Your task to perform on an android device: change the clock style Image 0: 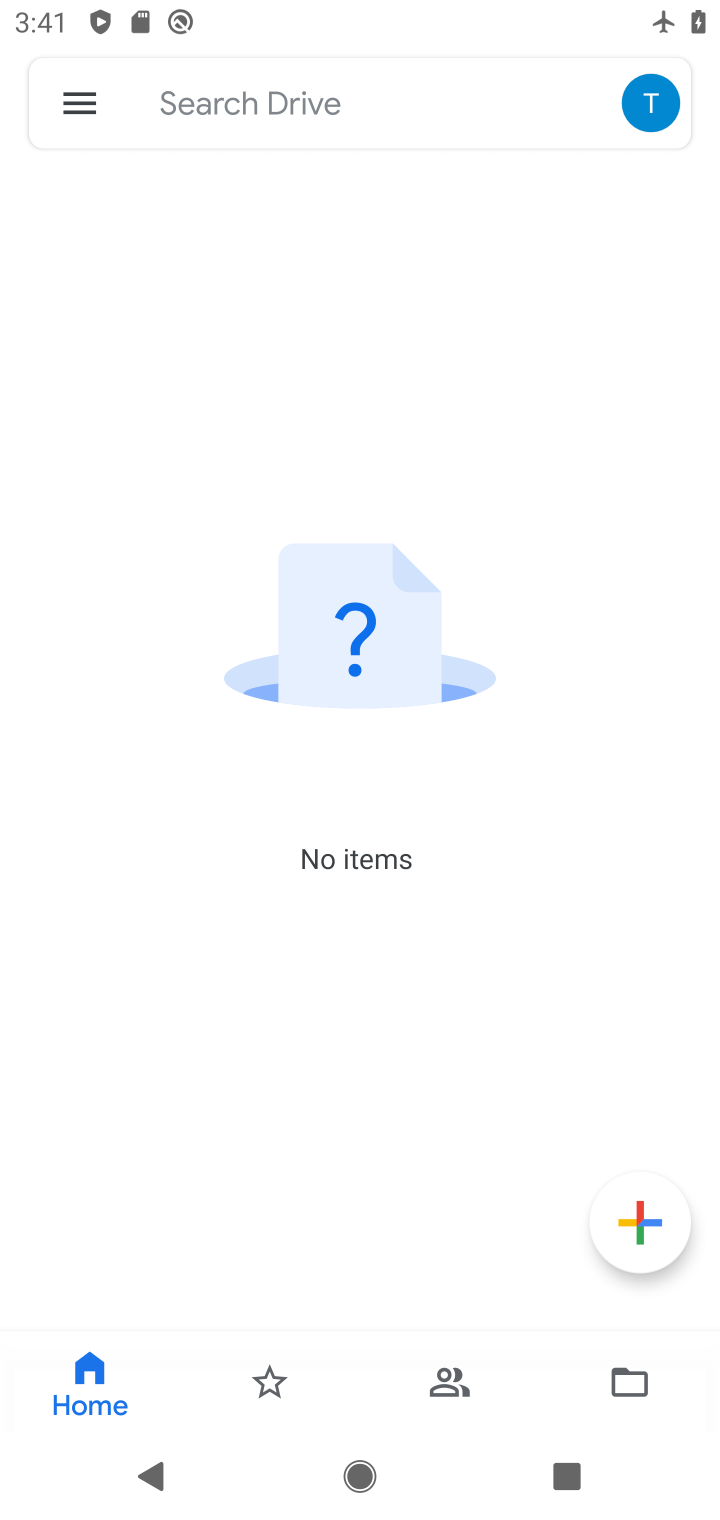
Step 0: press home button
Your task to perform on an android device: change the clock style Image 1: 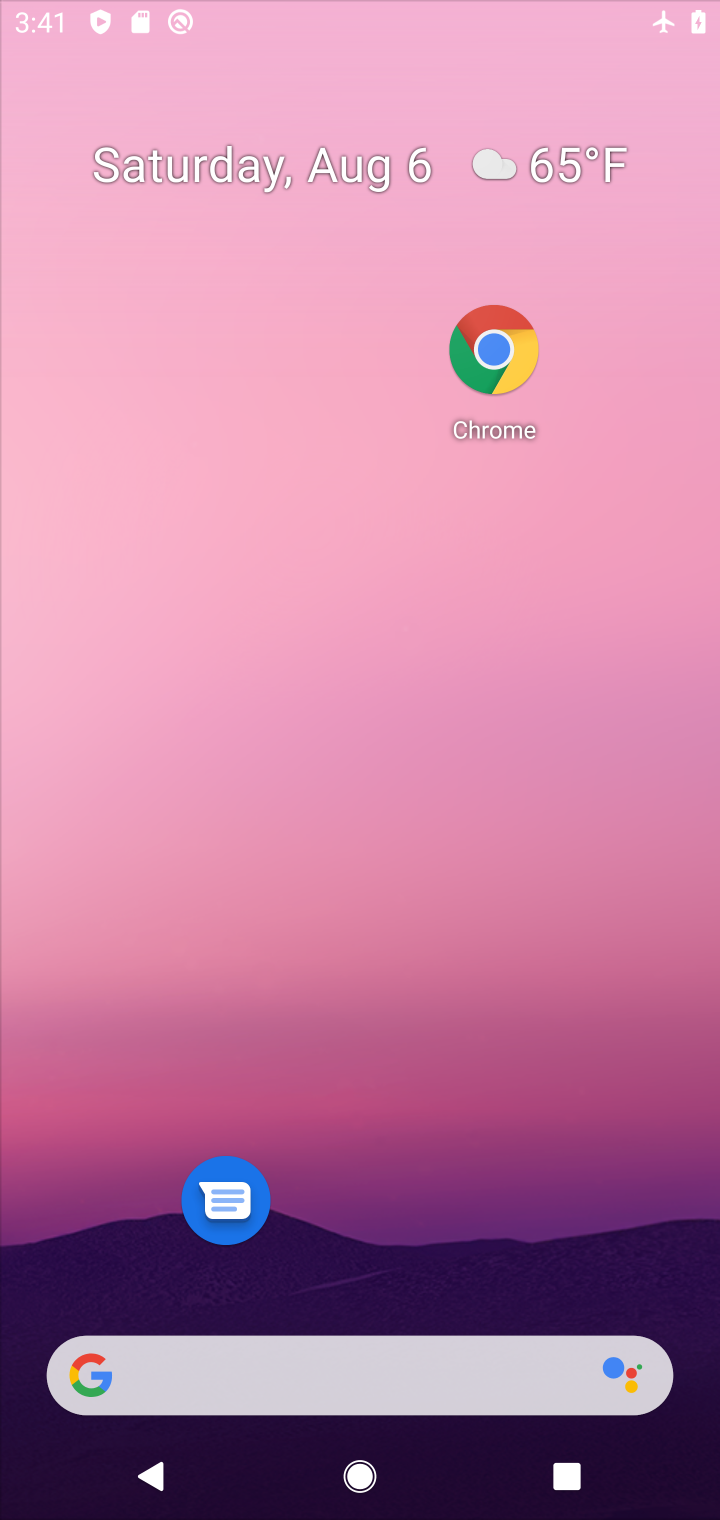
Step 1: drag from (473, 1499) to (561, 1286)
Your task to perform on an android device: change the clock style Image 2: 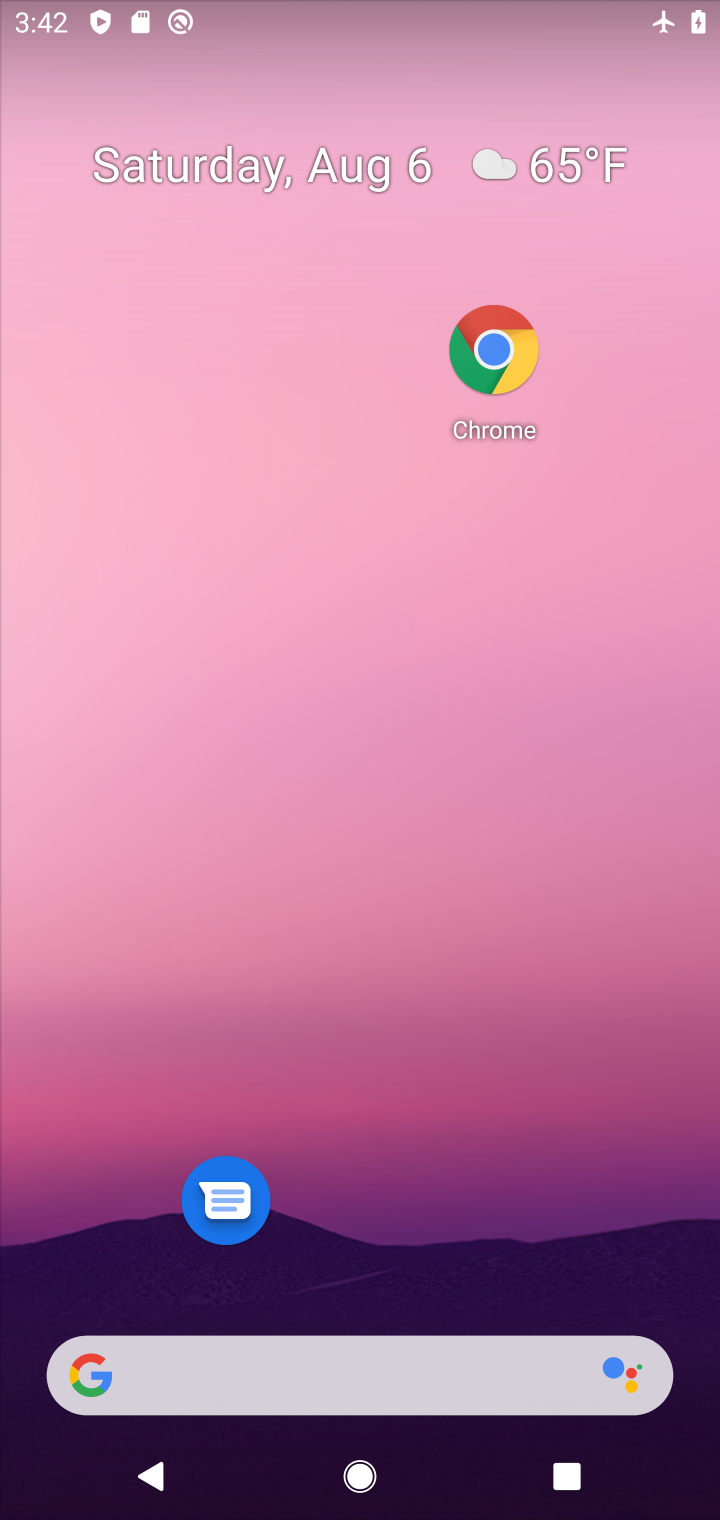
Step 2: drag from (354, 1314) to (523, 700)
Your task to perform on an android device: change the clock style Image 3: 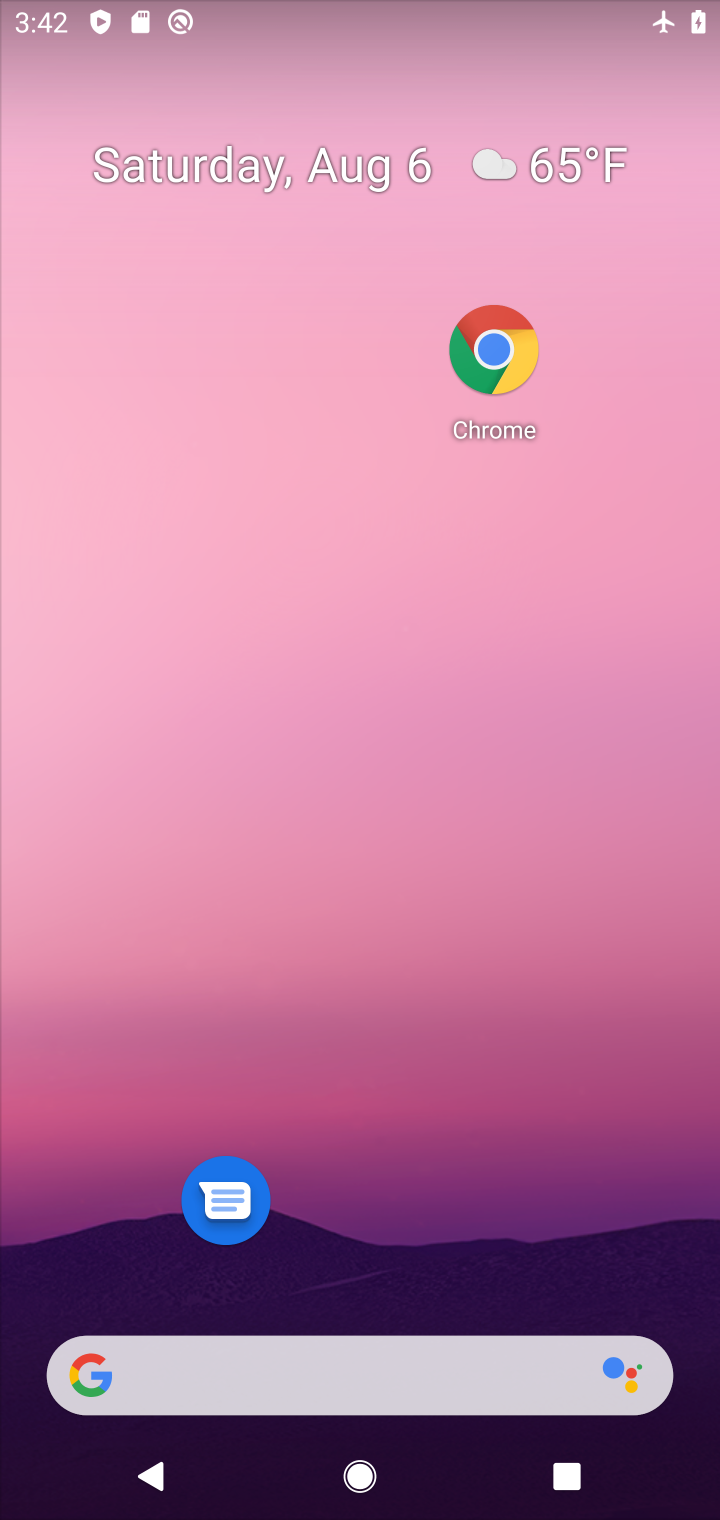
Step 3: drag from (508, 1399) to (717, 366)
Your task to perform on an android device: change the clock style Image 4: 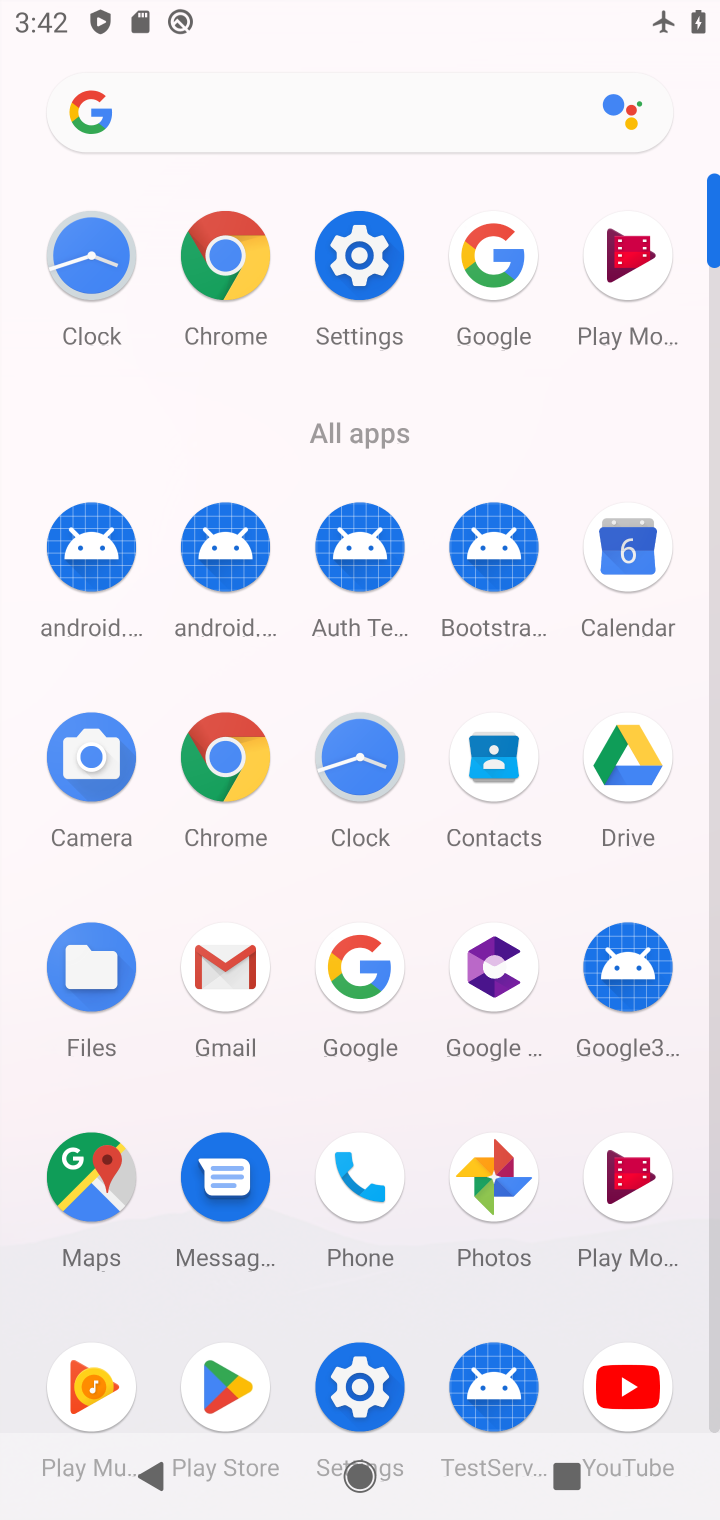
Step 4: click (362, 789)
Your task to perform on an android device: change the clock style Image 5: 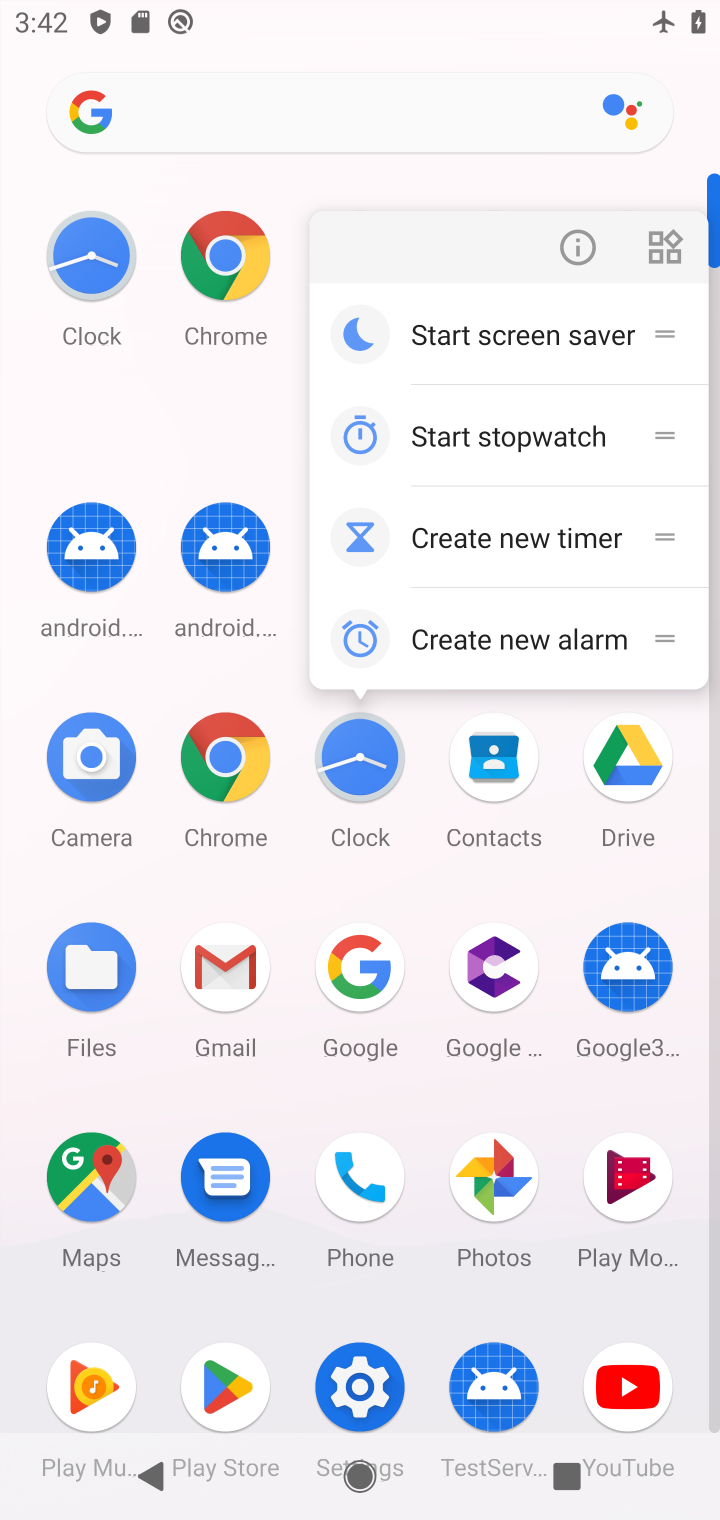
Step 5: click (362, 789)
Your task to perform on an android device: change the clock style Image 6: 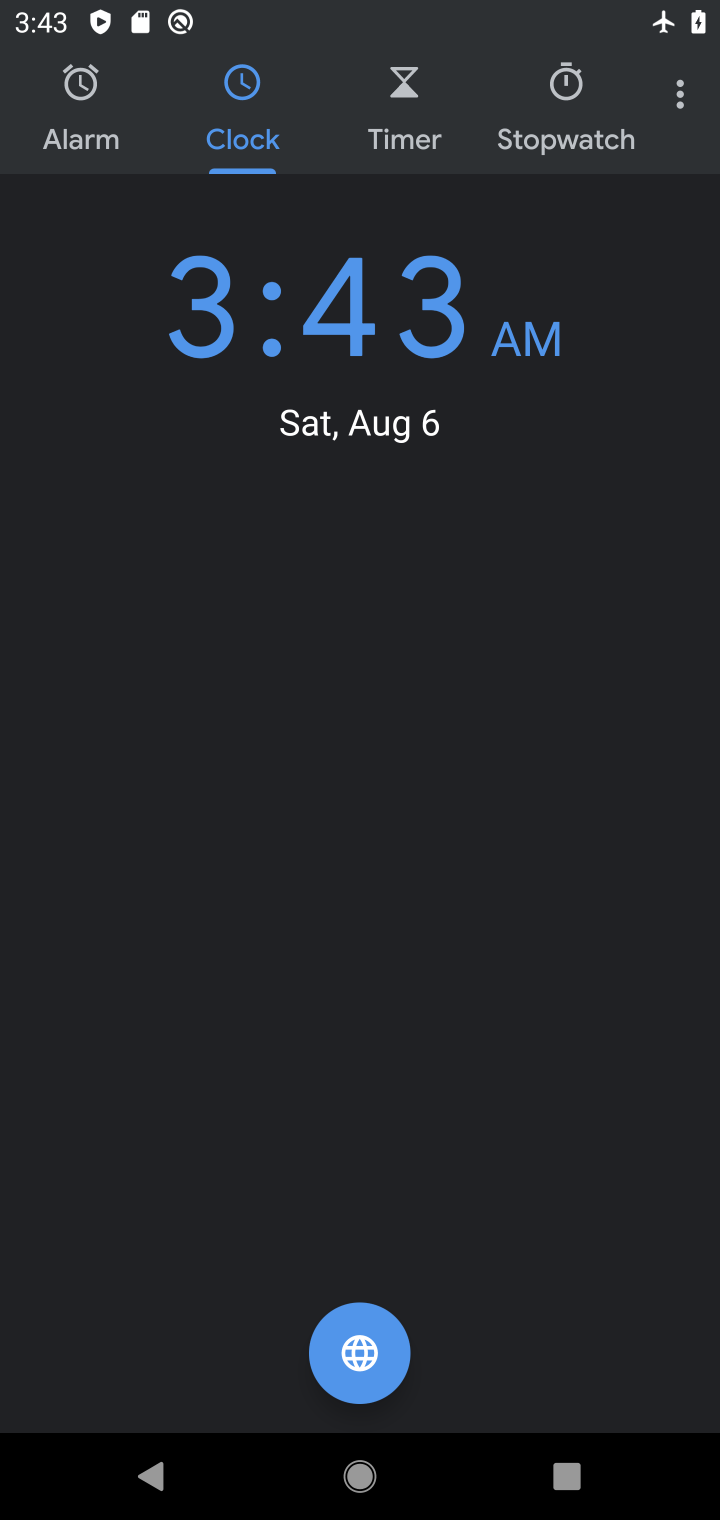
Step 6: click (682, 95)
Your task to perform on an android device: change the clock style Image 7: 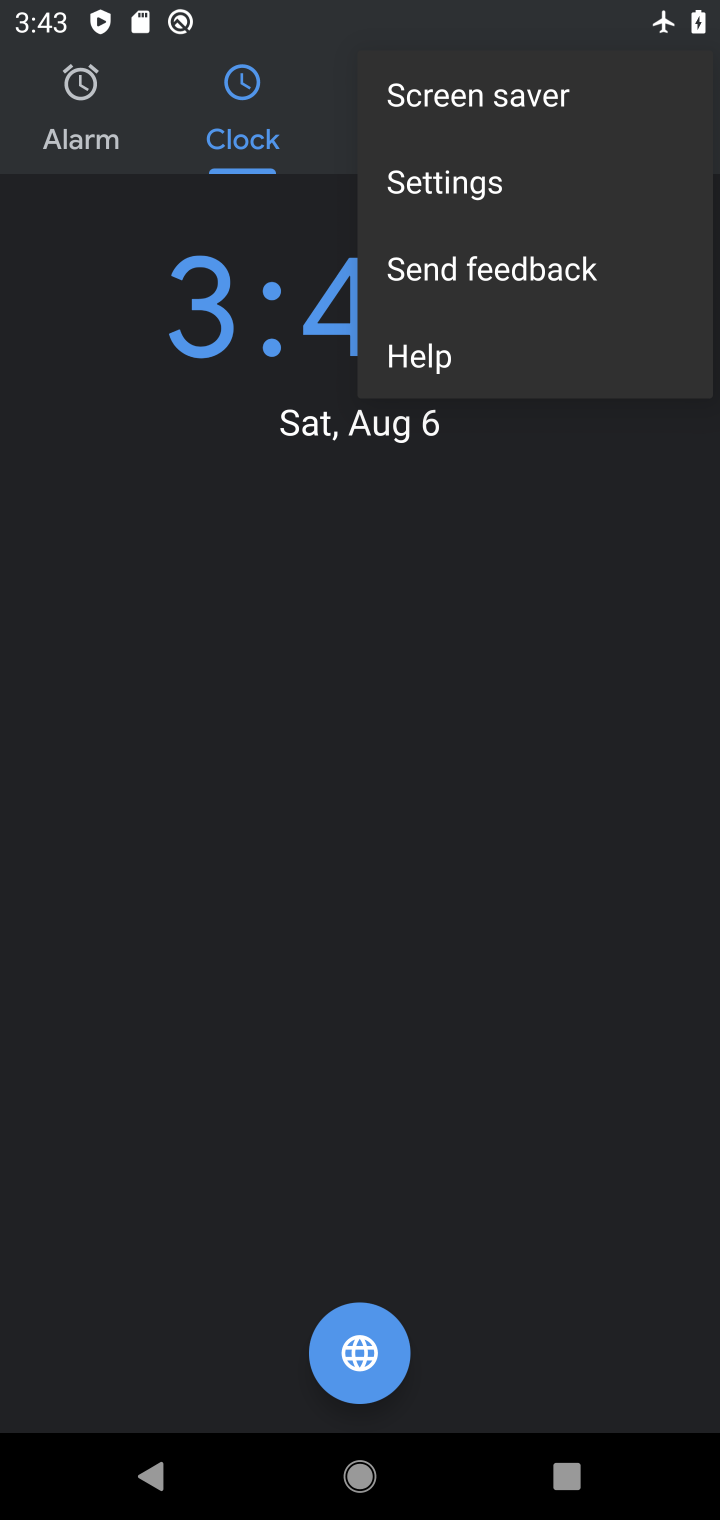
Step 7: click (417, 189)
Your task to perform on an android device: change the clock style Image 8: 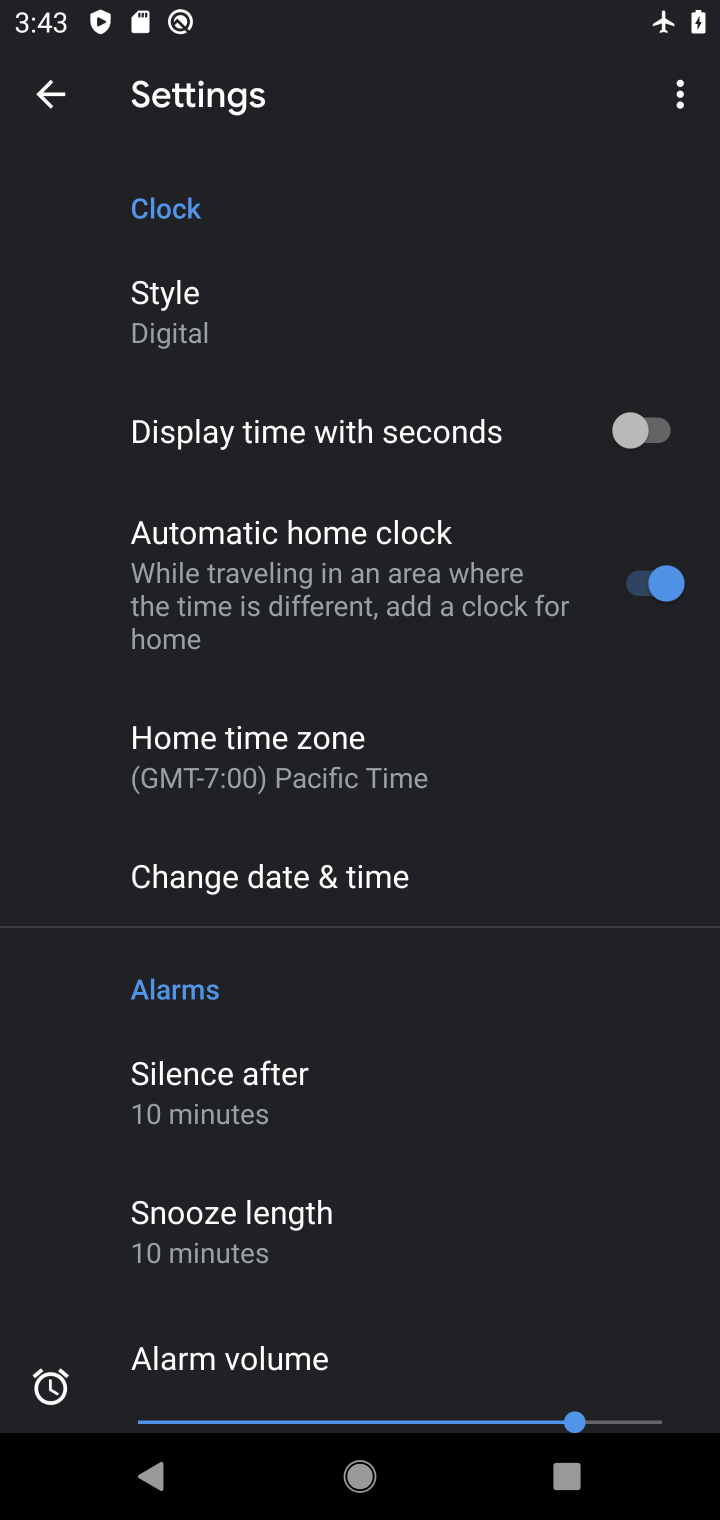
Step 8: click (175, 341)
Your task to perform on an android device: change the clock style Image 9: 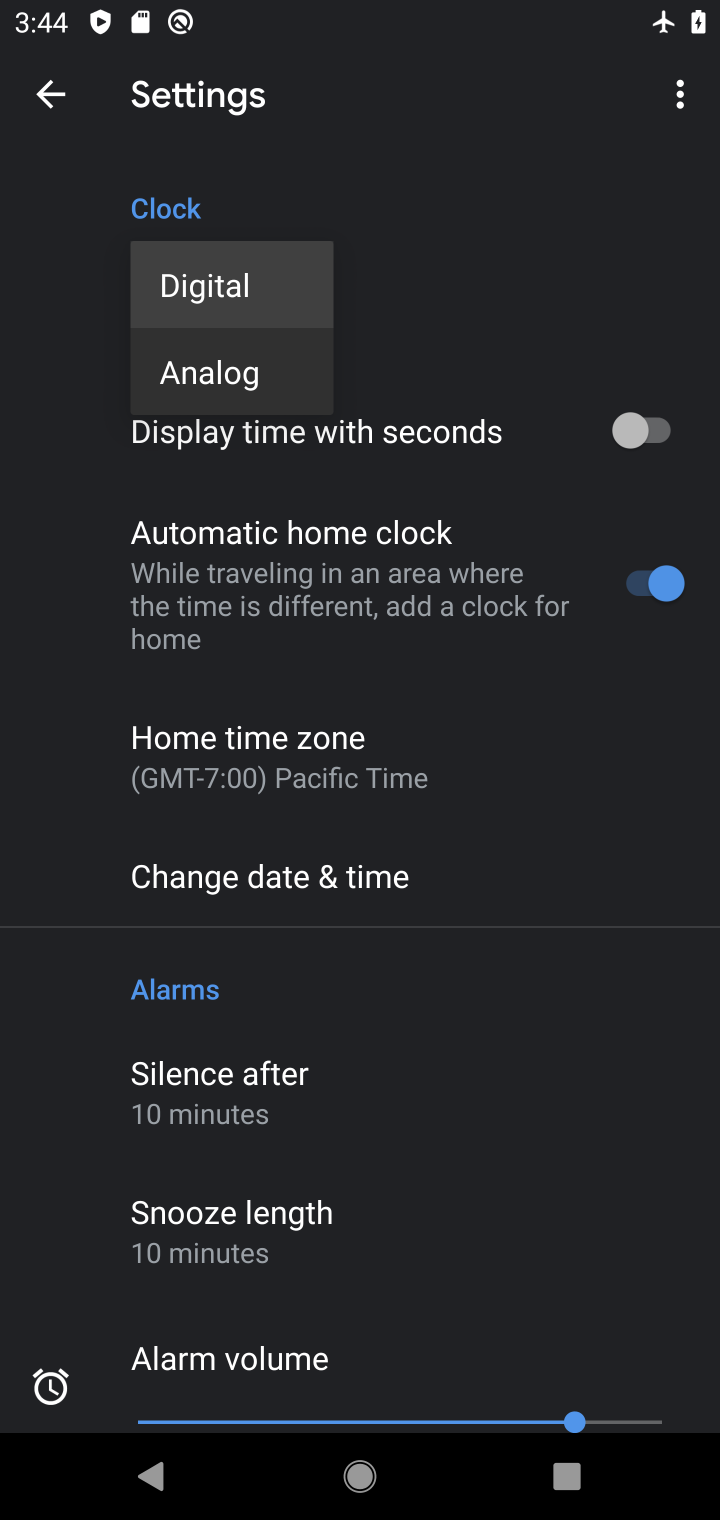
Step 9: click (260, 366)
Your task to perform on an android device: change the clock style Image 10: 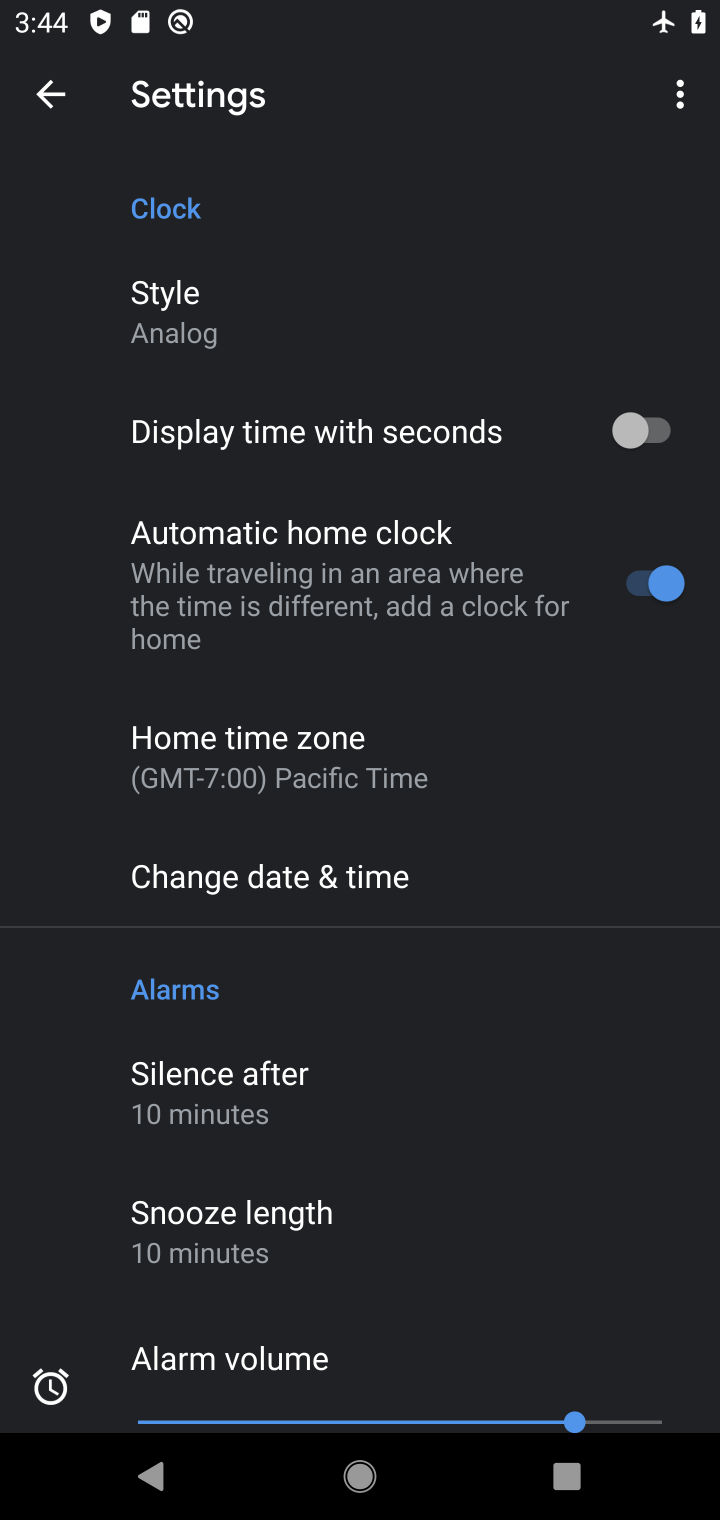
Step 10: task complete